Your task to perform on an android device: remove spam from my inbox in the gmail app Image 0: 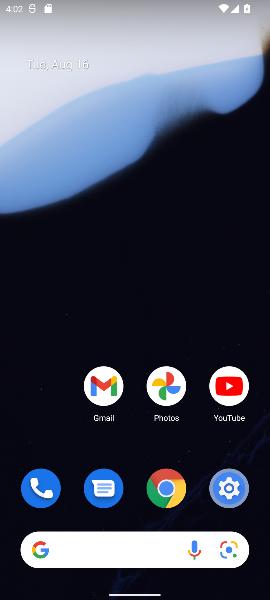
Step 0: click (94, 385)
Your task to perform on an android device: remove spam from my inbox in the gmail app Image 1: 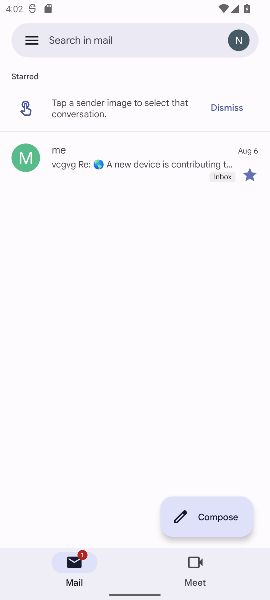
Step 1: task complete